Your task to perform on an android device: change the clock style Image 0: 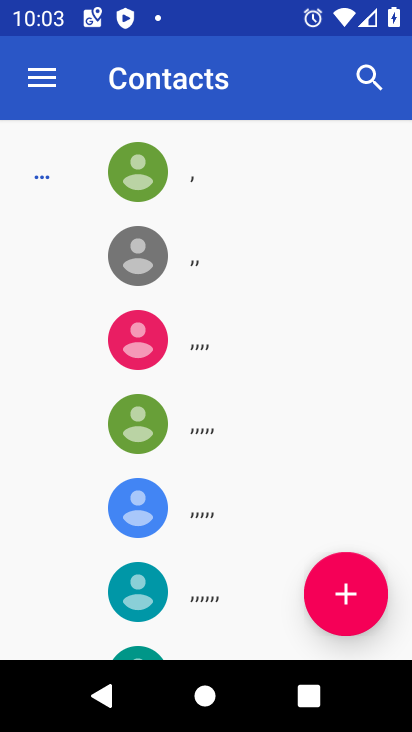
Step 0: press home button
Your task to perform on an android device: change the clock style Image 1: 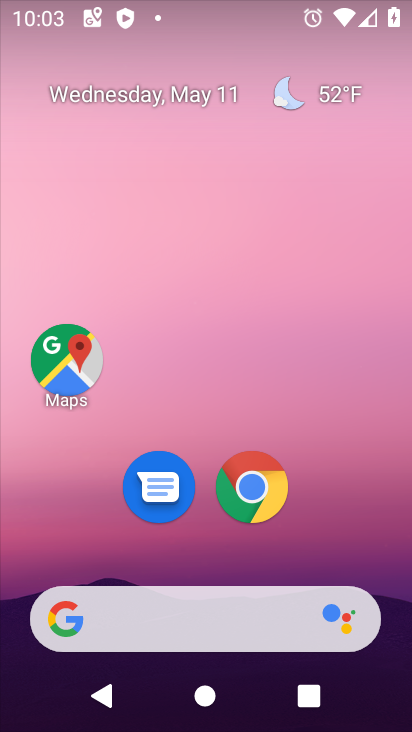
Step 1: drag from (221, 552) to (248, 122)
Your task to perform on an android device: change the clock style Image 2: 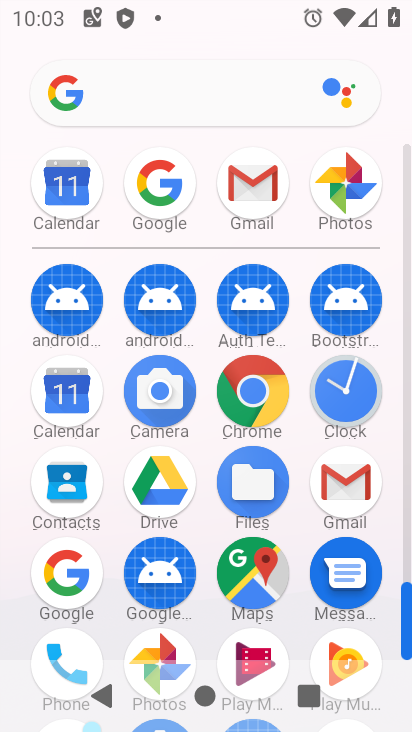
Step 2: click (343, 376)
Your task to perform on an android device: change the clock style Image 3: 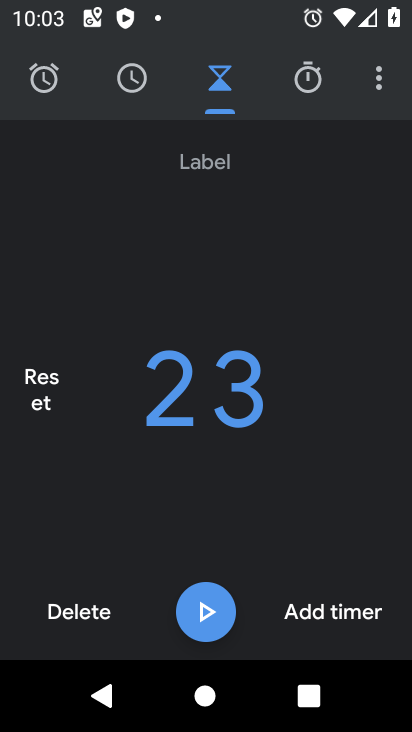
Step 3: drag from (379, 81) to (324, 103)
Your task to perform on an android device: change the clock style Image 4: 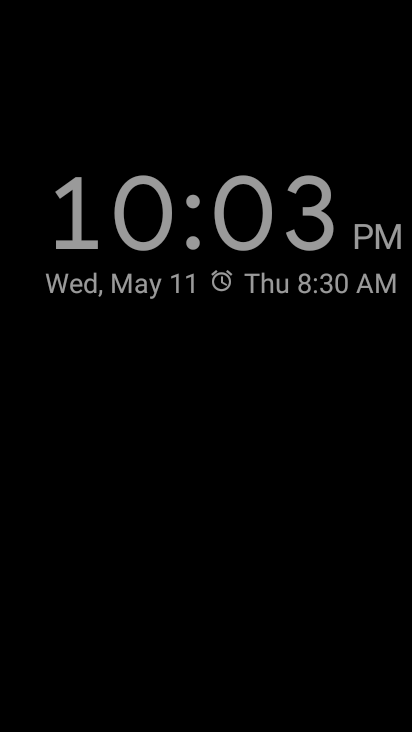
Step 4: press back button
Your task to perform on an android device: change the clock style Image 5: 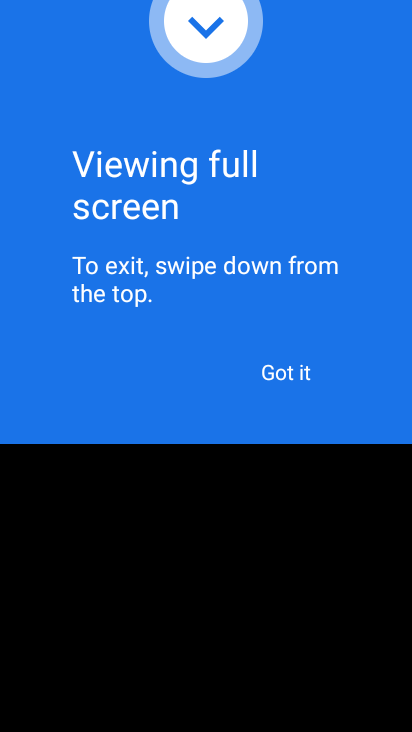
Step 5: press back button
Your task to perform on an android device: change the clock style Image 6: 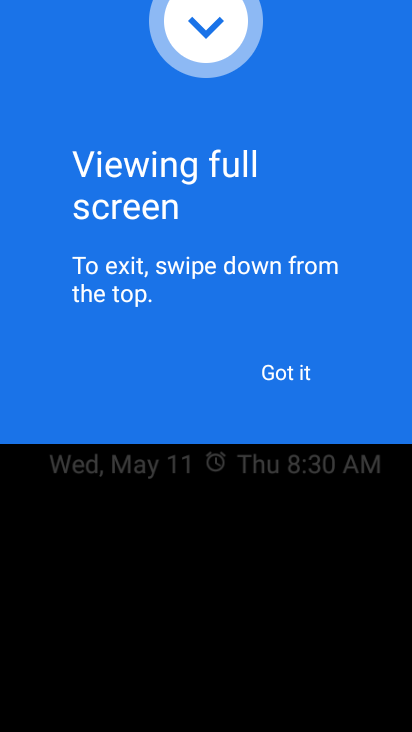
Step 6: press back button
Your task to perform on an android device: change the clock style Image 7: 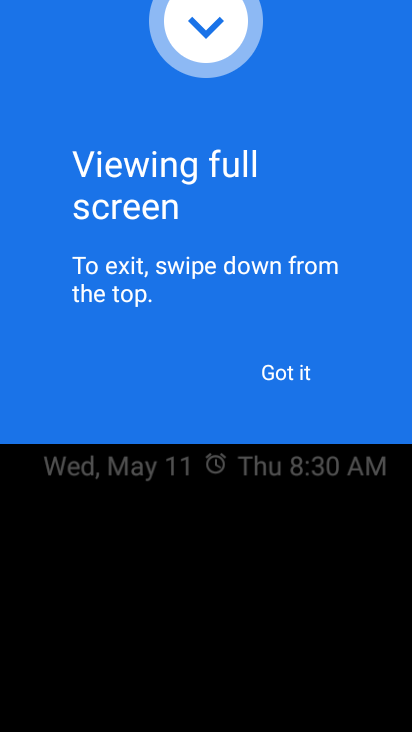
Step 7: click (262, 375)
Your task to perform on an android device: change the clock style Image 8: 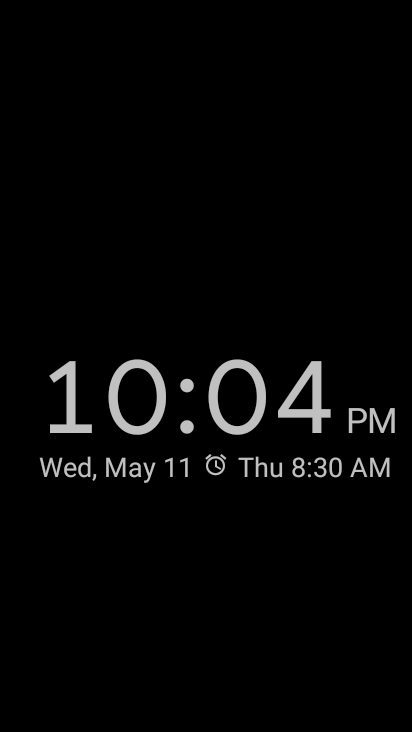
Step 8: press back button
Your task to perform on an android device: change the clock style Image 9: 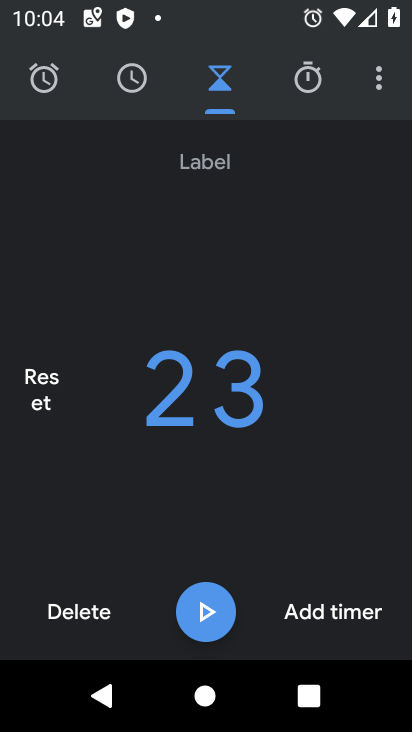
Step 9: click (384, 76)
Your task to perform on an android device: change the clock style Image 10: 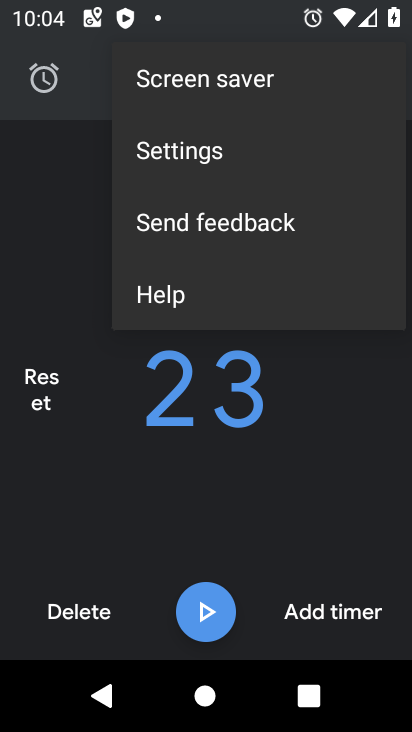
Step 10: click (150, 140)
Your task to perform on an android device: change the clock style Image 11: 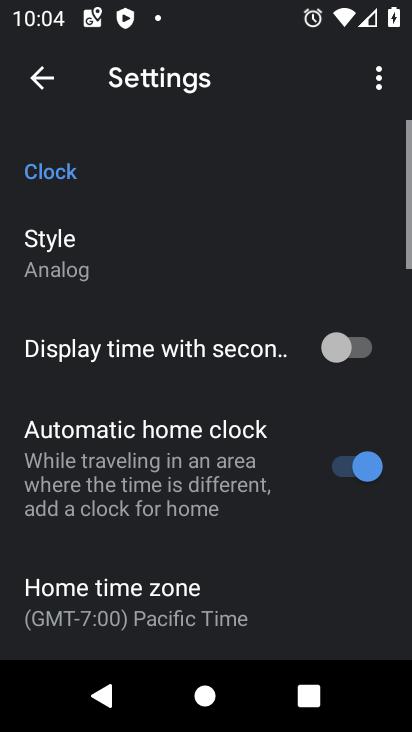
Step 11: click (103, 250)
Your task to perform on an android device: change the clock style Image 12: 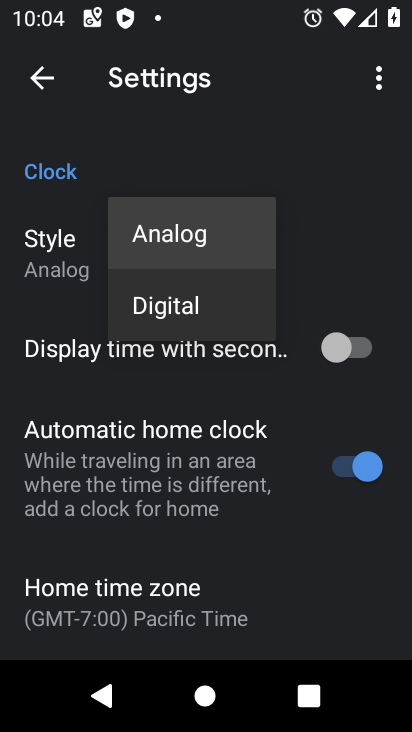
Step 12: click (143, 313)
Your task to perform on an android device: change the clock style Image 13: 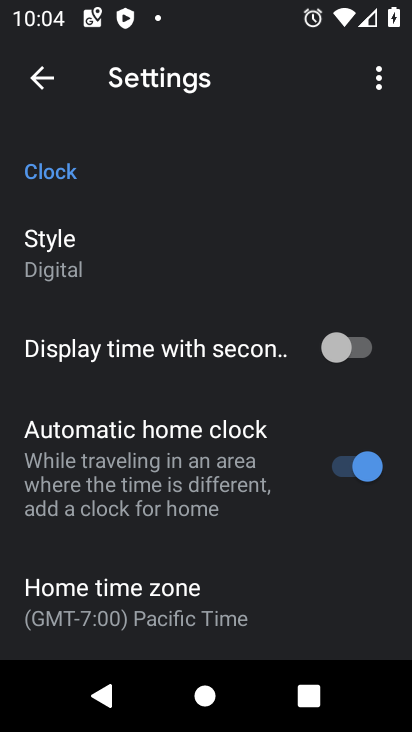
Step 13: task complete